Your task to perform on an android device: change keyboard looks Image 0: 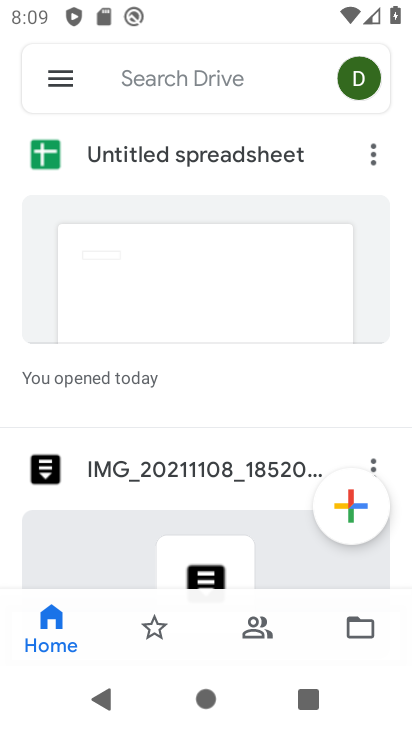
Step 0: press home button
Your task to perform on an android device: change keyboard looks Image 1: 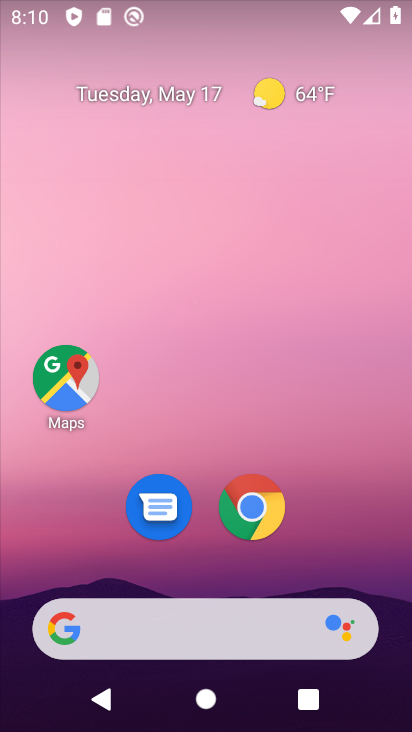
Step 1: drag from (308, 550) to (270, 110)
Your task to perform on an android device: change keyboard looks Image 2: 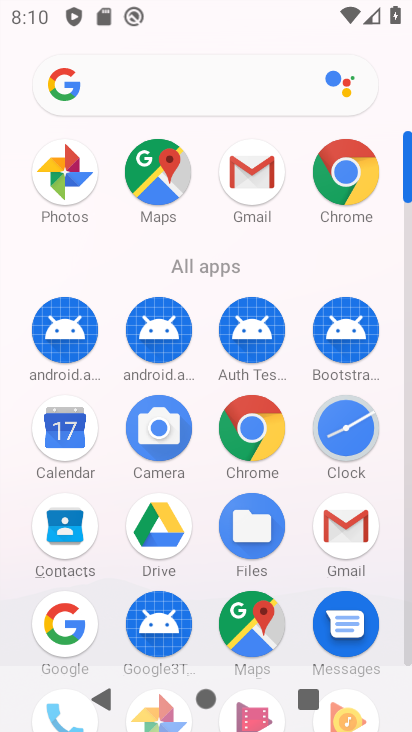
Step 2: drag from (107, 525) to (121, 272)
Your task to perform on an android device: change keyboard looks Image 3: 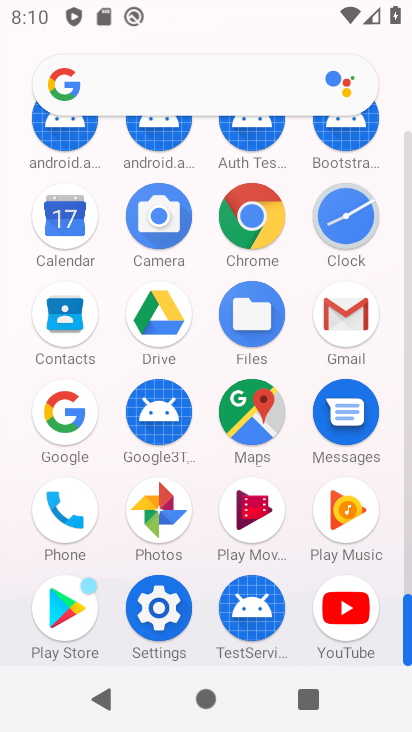
Step 3: click (159, 605)
Your task to perform on an android device: change keyboard looks Image 4: 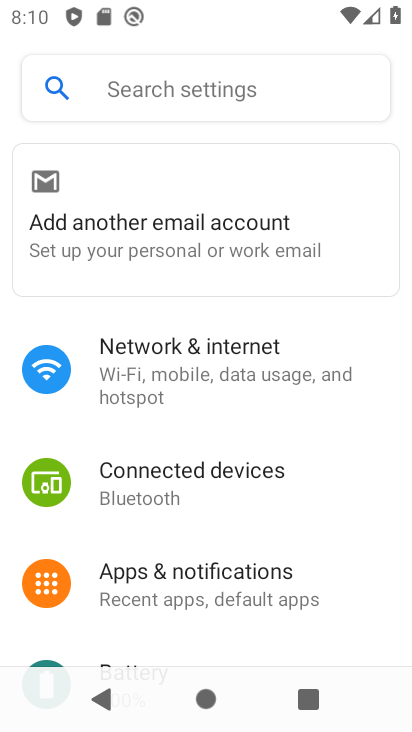
Step 4: drag from (233, 501) to (215, 395)
Your task to perform on an android device: change keyboard looks Image 5: 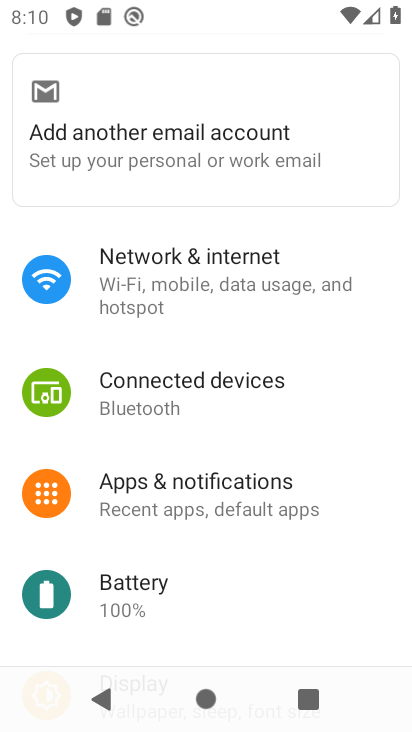
Step 5: drag from (203, 524) to (225, 432)
Your task to perform on an android device: change keyboard looks Image 6: 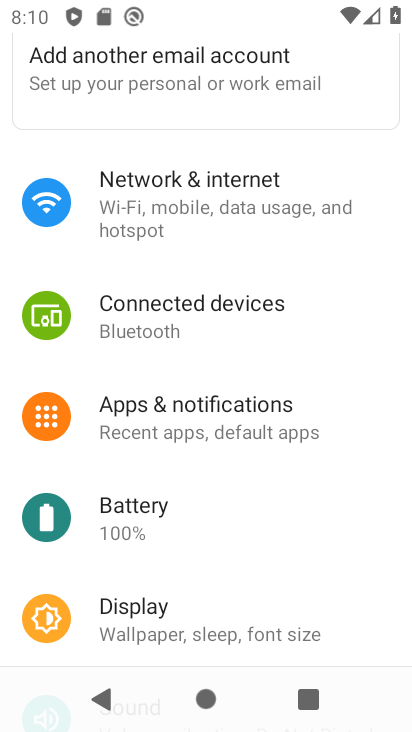
Step 6: drag from (204, 550) to (248, 421)
Your task to perform on an android device: change keyboard looks Image 7: 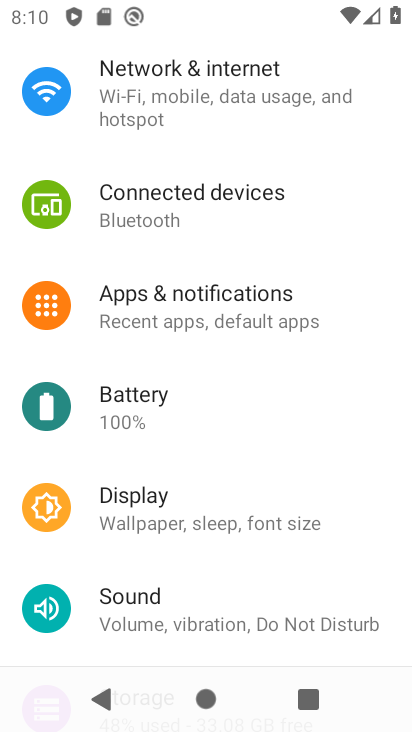
Step 7: drag from (195, 564) to (244, 434)
Your task to perform on an android device: change keyboard looks Image 8: 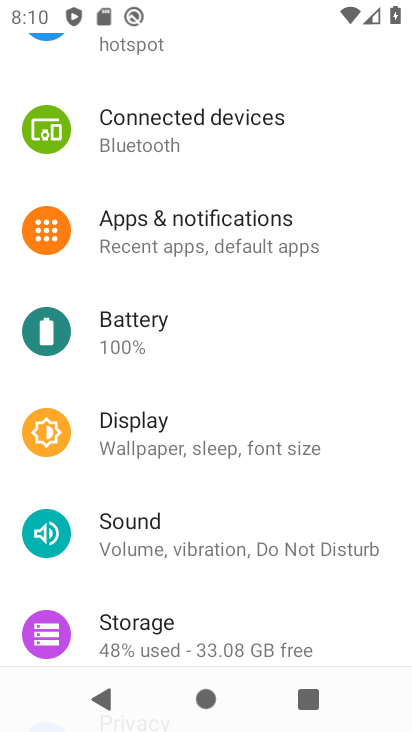
Step 8: drag from (176, 586) to (279, 445)
Your task to perform on an android device: change keyboard looks Image 9: 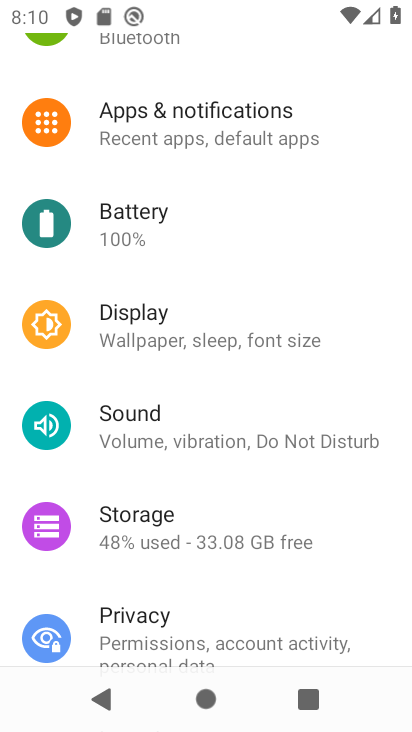
Step 9: drag from (201, 574) to (265, 431)
Your task to perform on an android device: change keyboard looks Image 10: 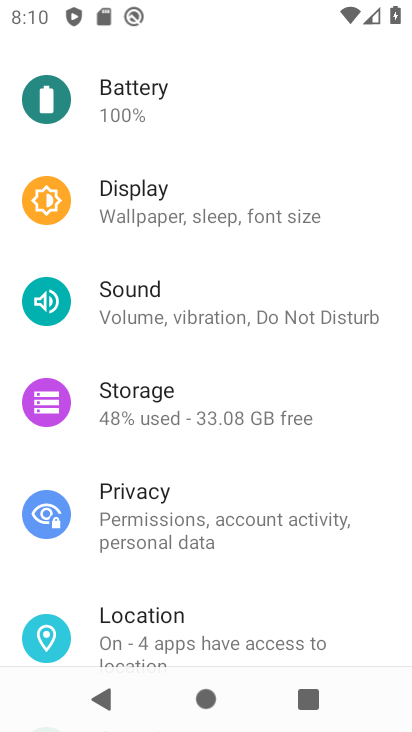
Step 10: drag from (197, 570) to (254, 448)
Your task to perform on an android device: change keyboard looks Image 11: 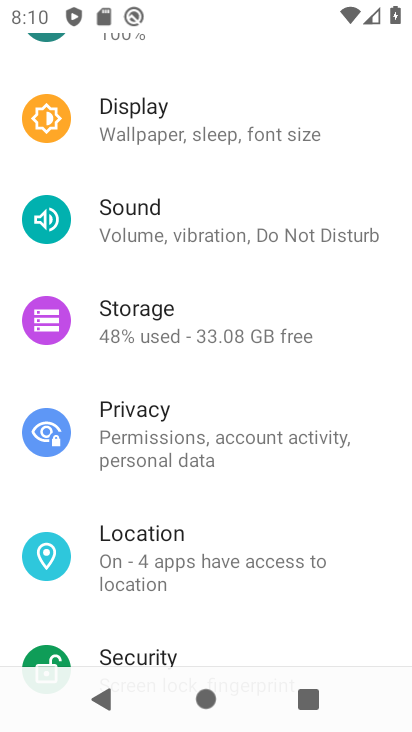
Step 11: drag from (189, 602) to (273, 490)
Your task to perform on an android device: change keyboard looks Image 12: 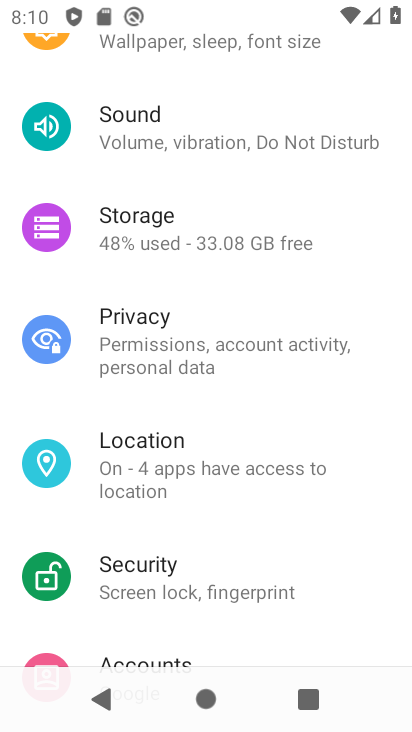
Step 12: drag from (192, 610) to (264, 480)
Your task to perform on an android device: change keyboard looks Image 13: 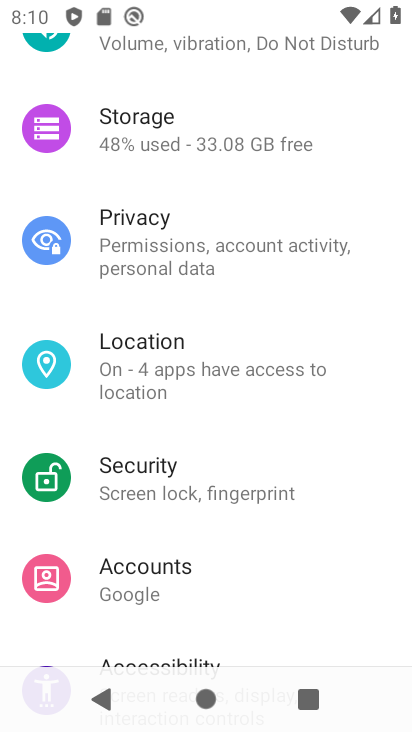
Step 13: drag from (210, 595) to (250, 495)
Your task to perform on an android device: change keyboard looks Image 14: 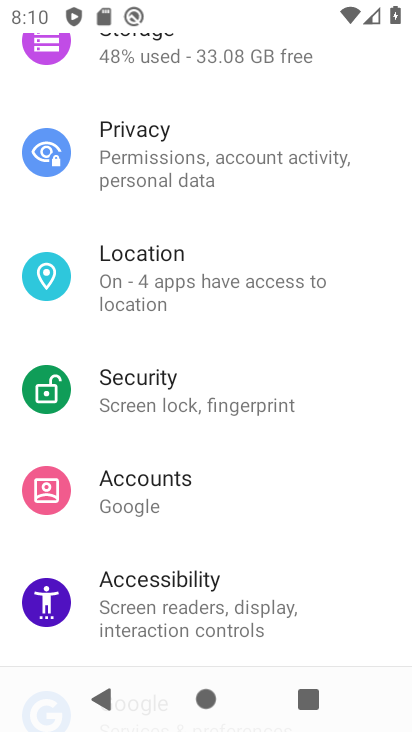
Step 14: drag from (250, 571) to (294, 468)
Your task to perform on an android device: change keyboard looks Image 15: 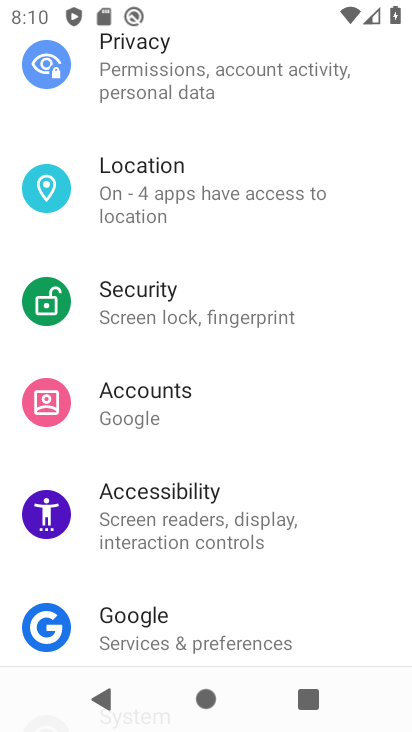
Step 15: drag from (231, 591) to (291, 457)
Your task to perform on an android device: change keyboard looks Image 16: 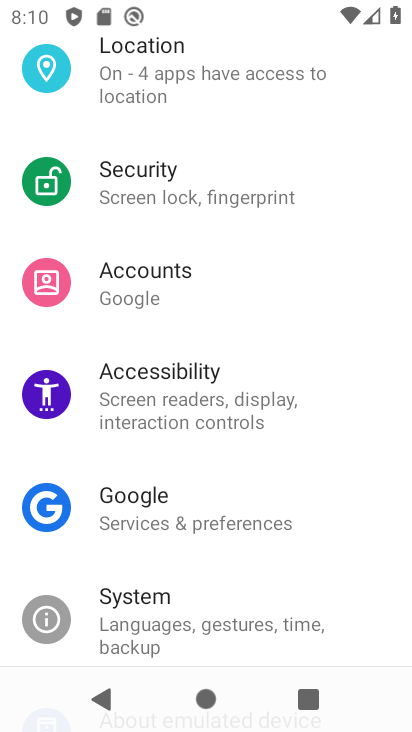
Step 16: drag from (197, 568) to (294, 457)
Your task to perform on an android device: change keyboard looks Image 17: 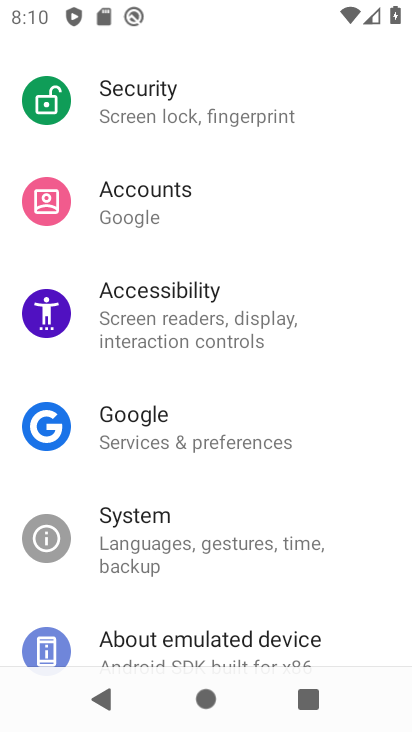
Step 17: click (160, 523)
Your task to perform on an android device: change keyboard looks Image 18: 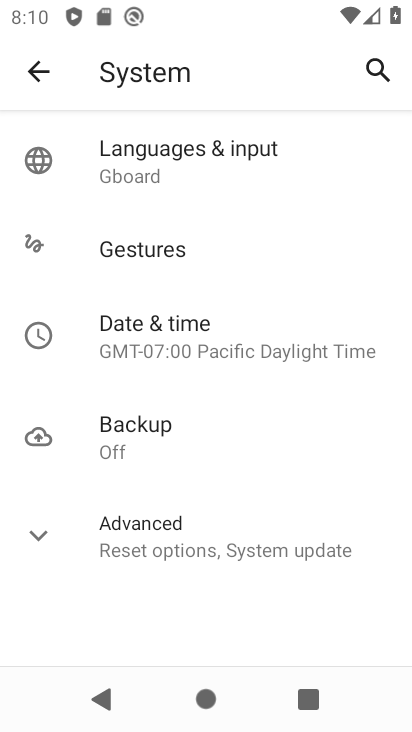
Step 18: click (171, 152)
Your task to perform on an android device: change keyboard looks Image 19: 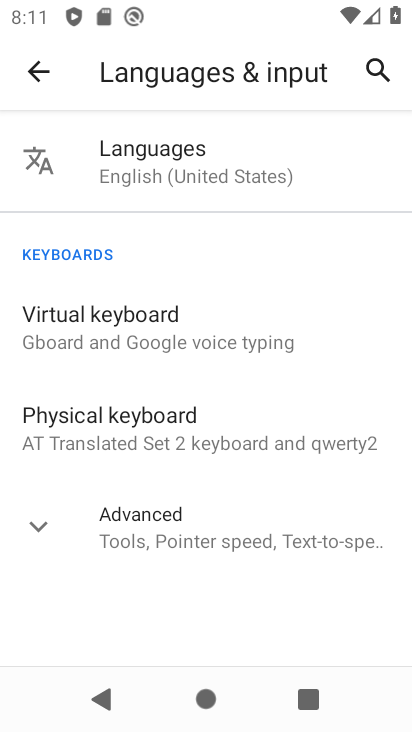
Step 19: click (181, 345)
Your task to perform on an android device: change keyboard looks Image 20: 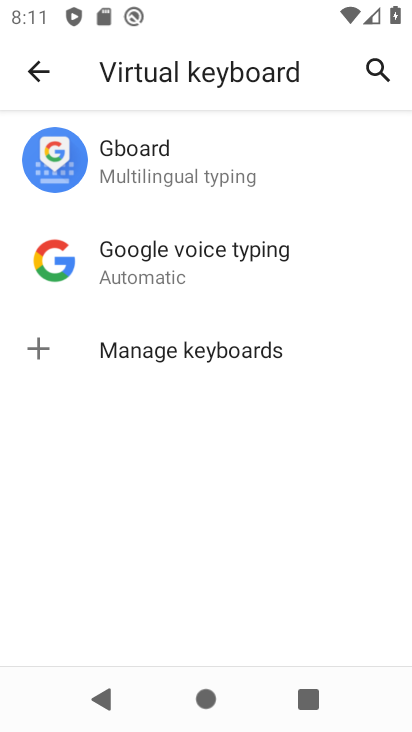
Step 20: click (157, 153)
Your task to perform on an android device: change keyboard looks Image 21: 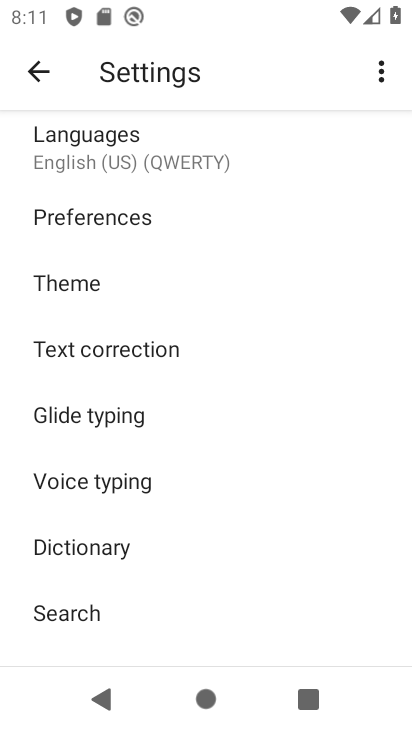
Step 21: click (101, 286)
Your task to perform on an android device: change keyboard looks Image 22: 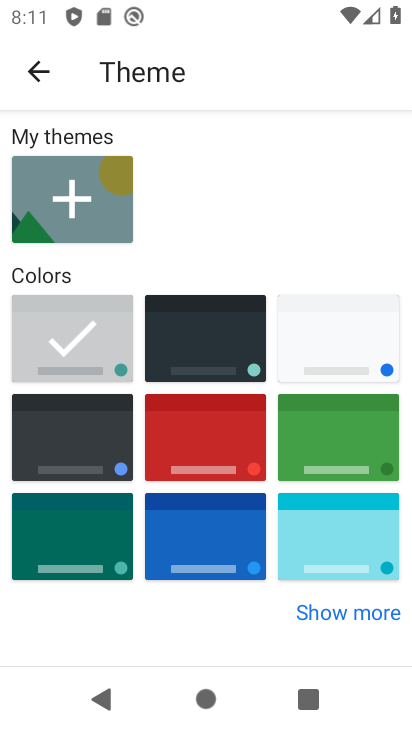
Step 22: click (224, 446)
Your task to perform on an android device: change keyboard looks Image 23: 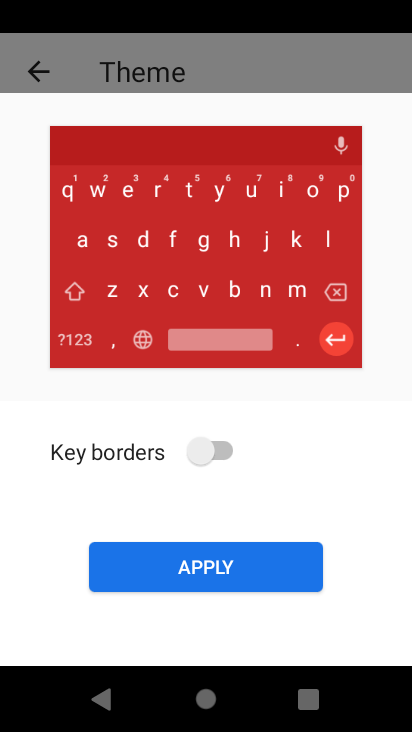
Step 23: click (203, 450)
Your task to perform on an android device: change keyboard looks Image 24: 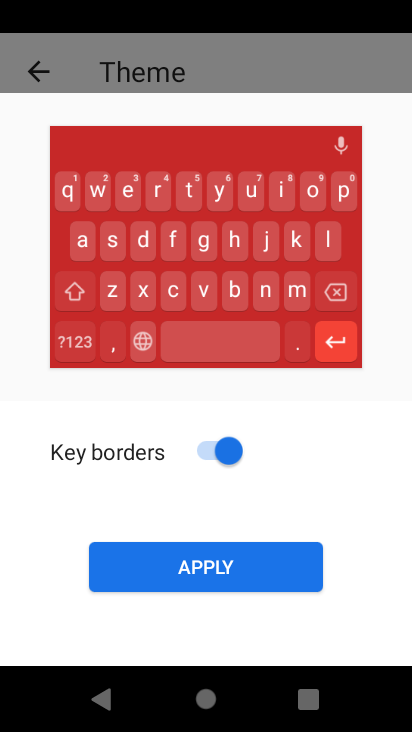
Step 24: click (203, 568)
Your task to perform on an android device: change keyboard looks Image 25: 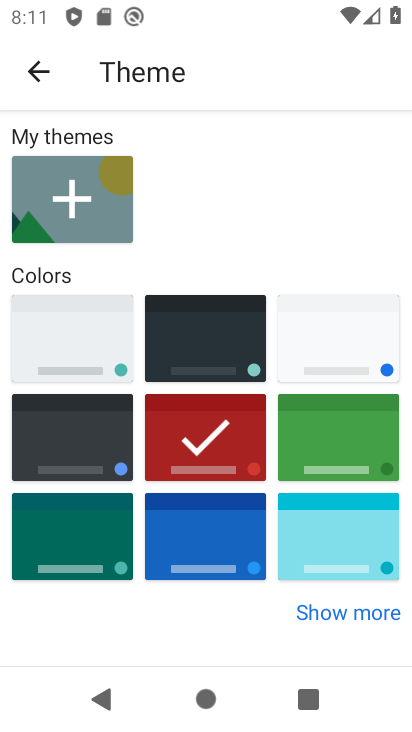
Step 25: task complete